Your task to perform on an android device: add a label to a message in the gmail app Image 0: 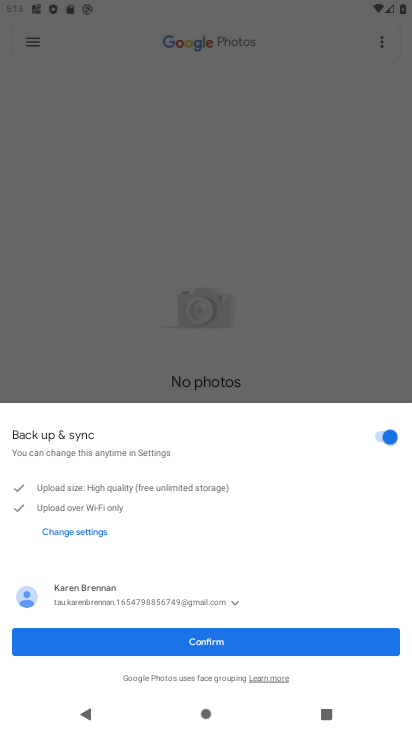
Step 0: press home button
Your task to perform on an android device: add a label to a message in the gmail app Image 1: 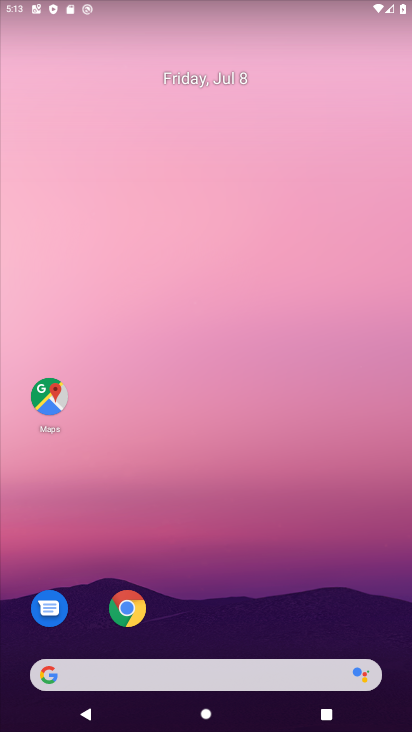
Step 1: drag from (249, 665) to (213, 8)
Your task to perform on an android device: add a label to a message in the gmail app Image 2: 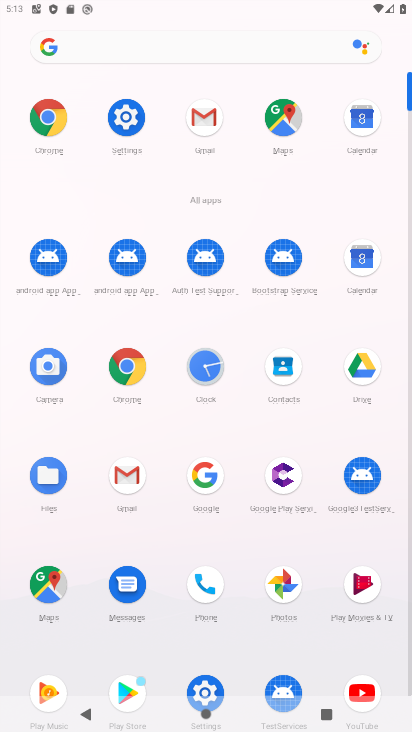
Step 2: click (116, 479)
Your task to perform on an android device: add a label to a message in the gmail app Image 3: 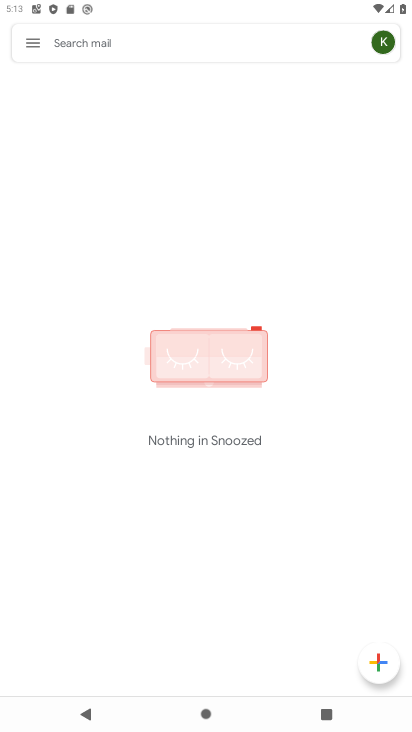
Step 3: task complete